Your task to perform on an android device: change the upload size in google photos Image 0: 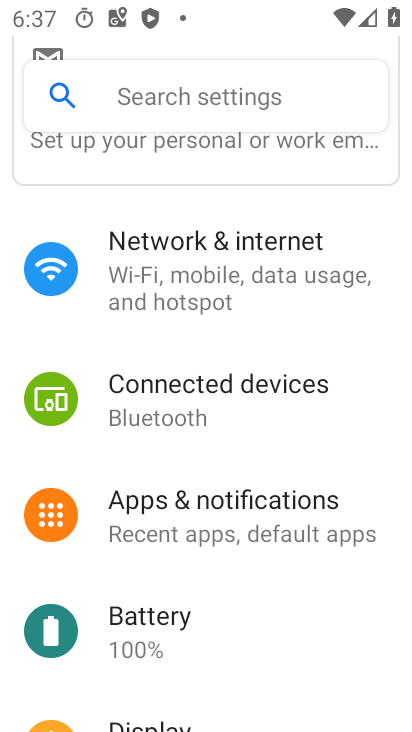
Step 0: press home button
Your task to perform on an android device: change the upload size in google photos Image 1: 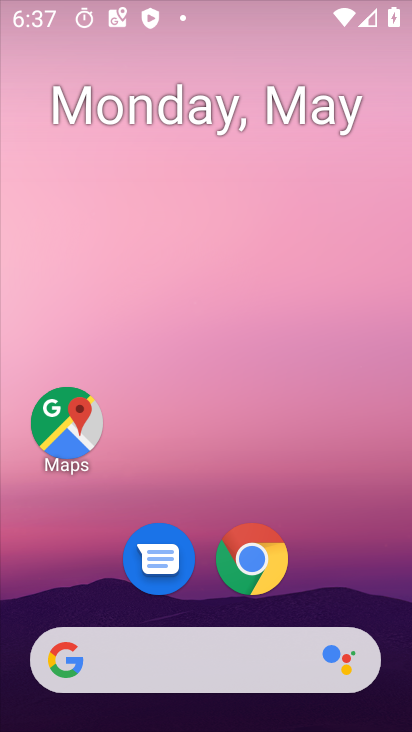
Step 1: drag from (381, 623) to (350, 60)
Your task to perform on an android device: change the upload size in google photos Image 2: 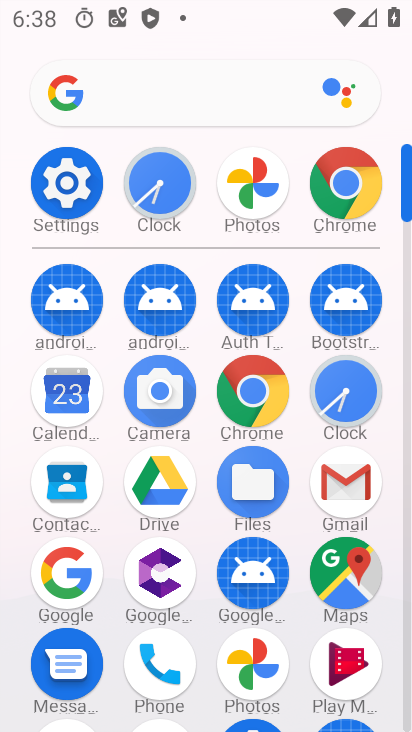
Step 2: click (239, 664)
Your task to perform on an android device: change the upload size in google photos Image 3: 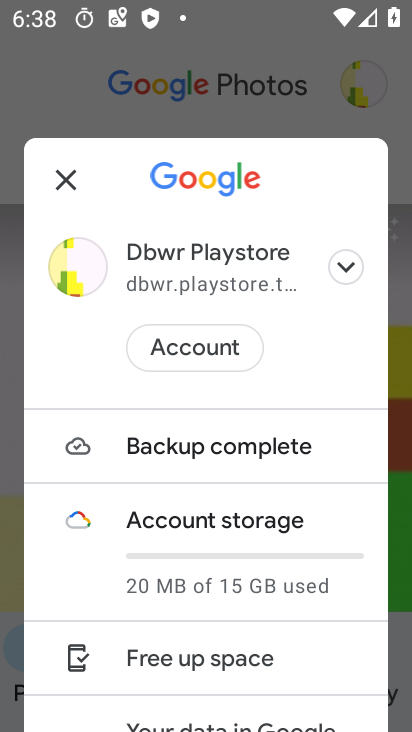
Step 3: press back button
Your task to perform on an android device: change the upload size in google photos Image 4: 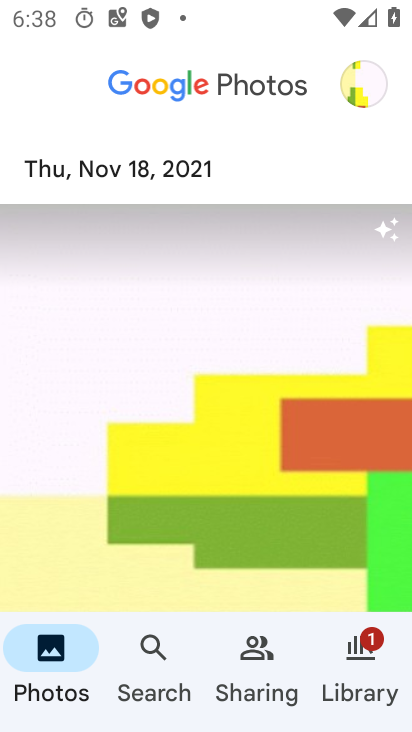
Step 4: click (371, 78)
Your task to perform on an android device: change the upload size in google photos Image 5: 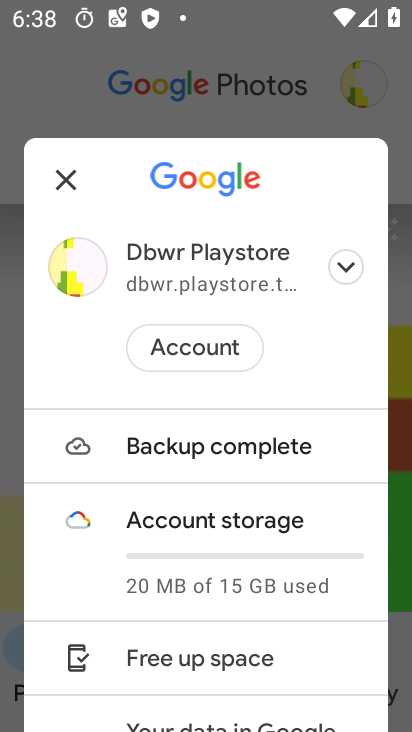
Step 5: drag from (229, 576) to (238, 152)
Your task to perform on an android device: change the upload size in google photos Image 6: 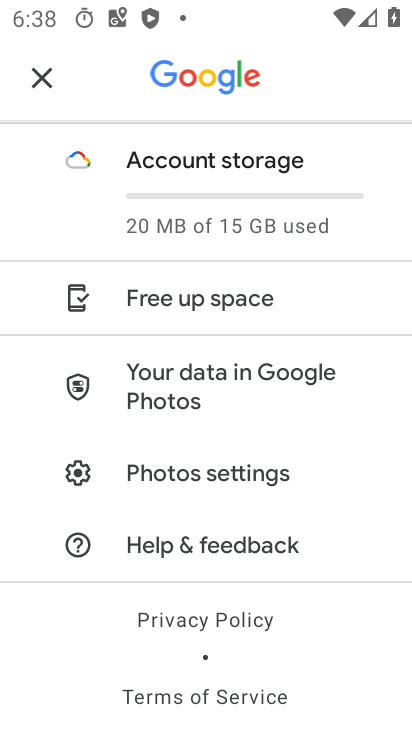
Step 6: click (191, 489)
Your task to perform on an android device: change the upload size in google photos Image 7: 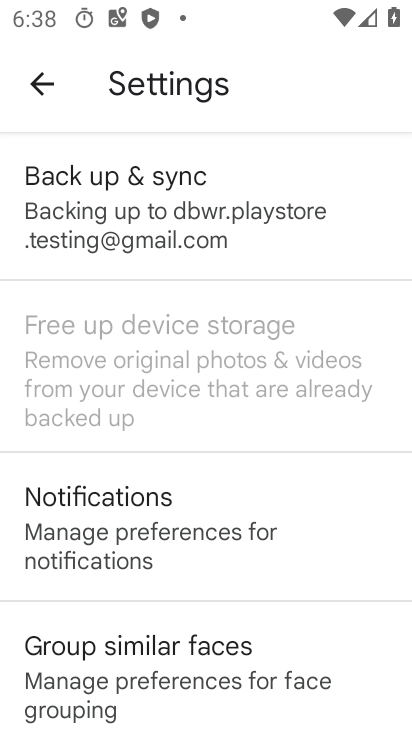
Step 7: click (188, 248)
Your task to perform on an android device: change the upload size in google photos Image 8: 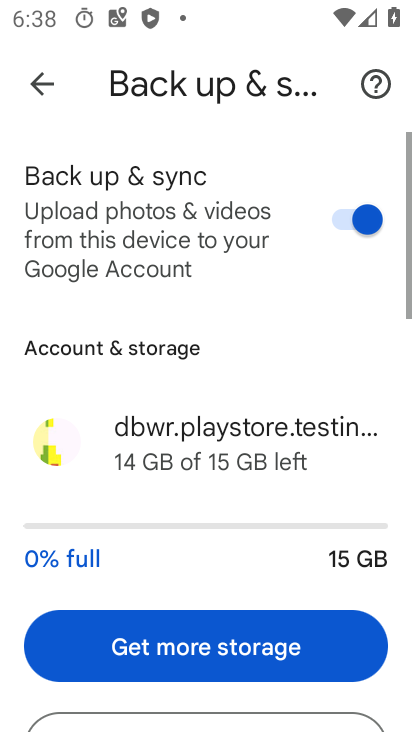
Step 8: drag from (196, 582) to (234, 149)
Your task to perform on an android device: change the upload size in google photos Image 9: 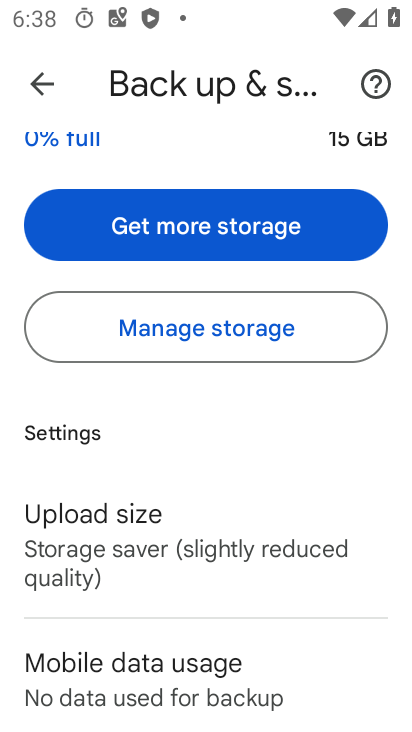
Step 9: click (205, 546)
Your task to perform on an android device: change the upload size in google photos Image 10: 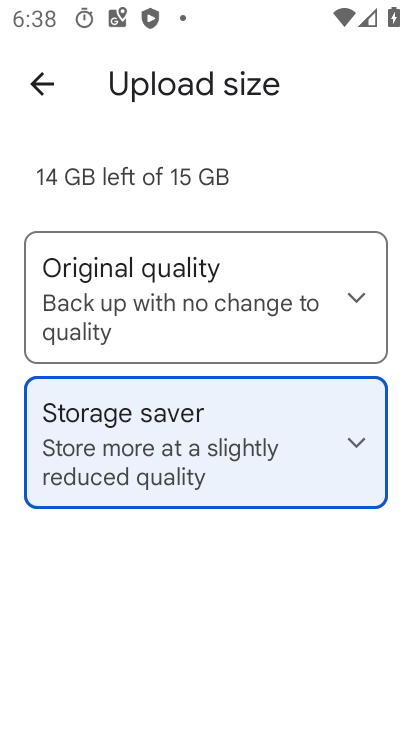
Step 10: click (179, 327)
Your task to perform on an android device: change the upload size in google photos Image 11: 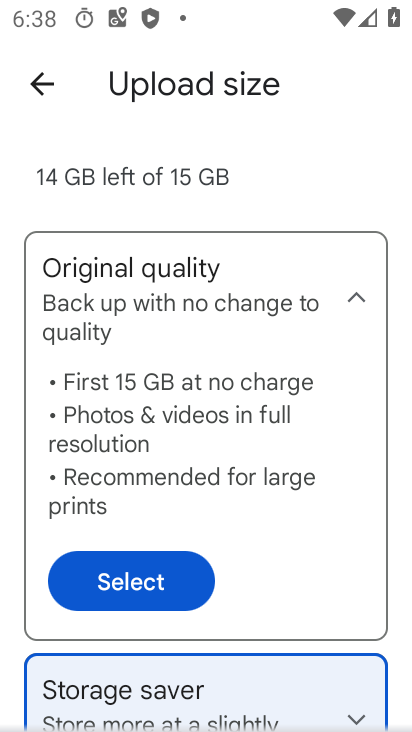
Step 11: click (126, 569)
Your task to perform on an android device: change the upload size in google photos Image 12: 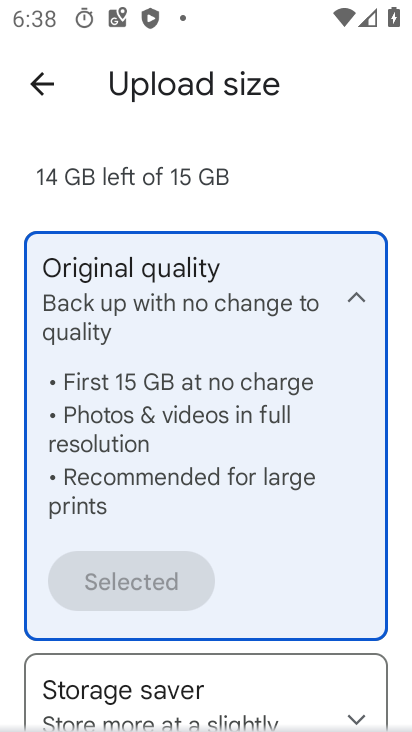
Step 12: task complete